Your task to perform on an android device: Open Reddit.com Image 0: 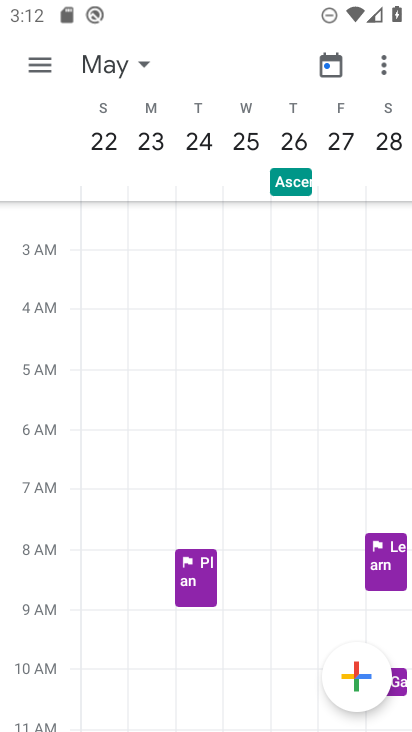
Step 0: press back button
Your task to perform on an android device: Open Reddit.com Image 1: 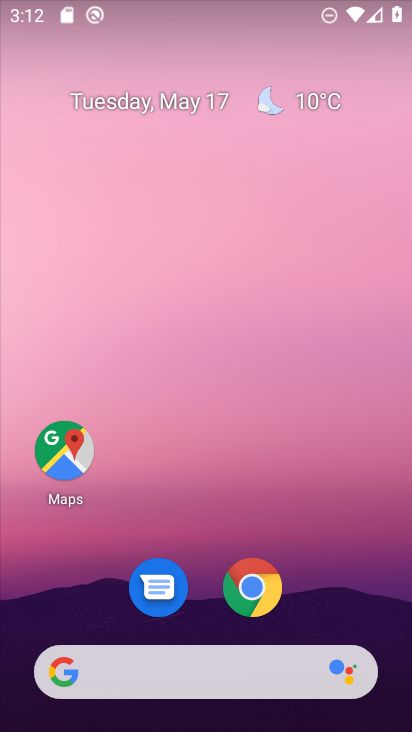
Step 1: drag from (297, 587) to (279, 55)
Your task to perform on an android device: Open Reddit.com Image 2: 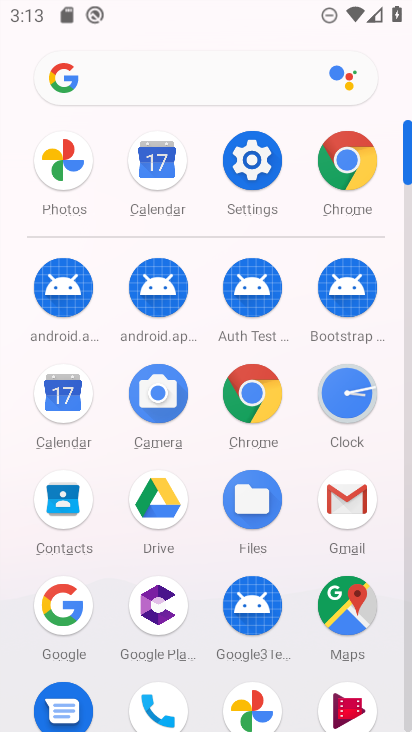
Step 2: click (352, 162)
Your task to perform on an android device: Open Reddit.com Image 3: 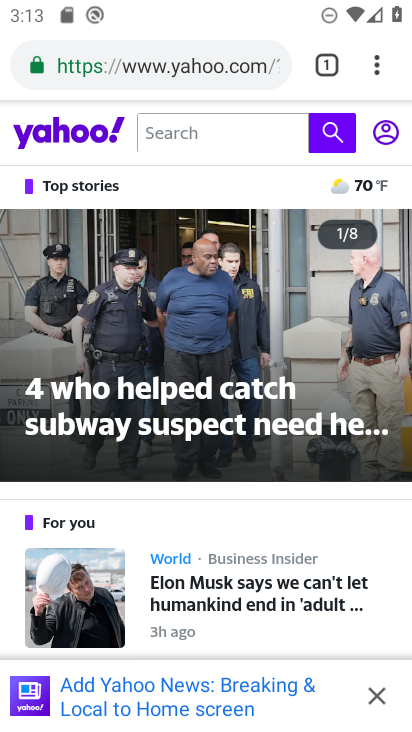
Step 3: click (182, 72)
Your task to perform on an android device: Open Reddit.com Image 4: 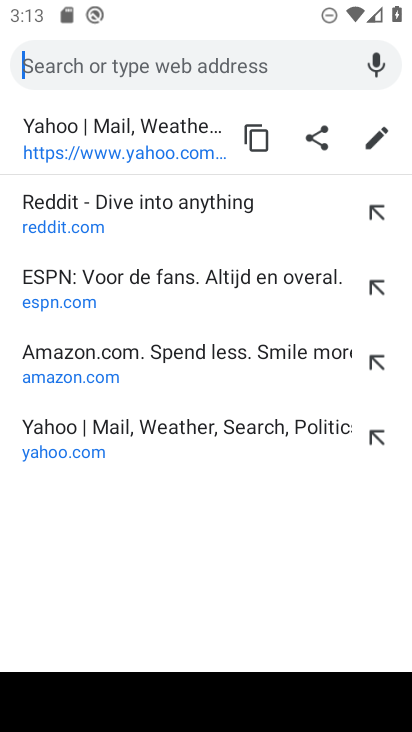
Step 4: click (120, 220)
Your task to perform on an android device: Open Reddit.com Image 5: 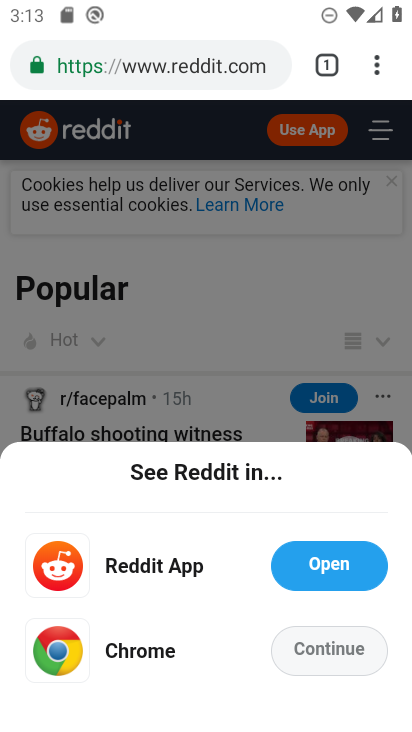
Step 5: task complete